Your task to perform on an android device: choose inbox layout in the gmail app Image 0: 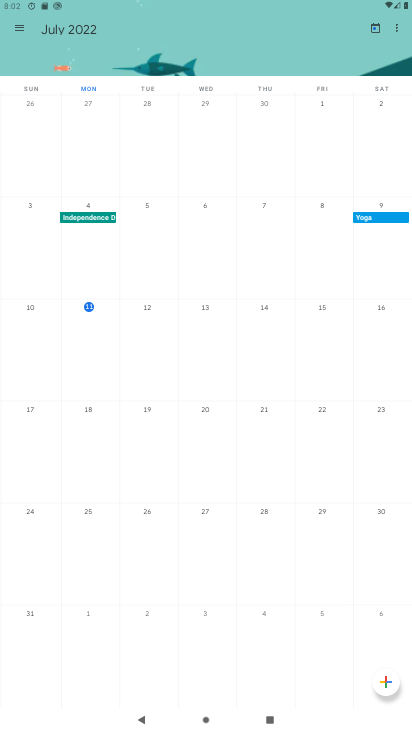
Step 0: press home button
Your task to perform on an android device: choose inbox layout in the gmail app Image 1: 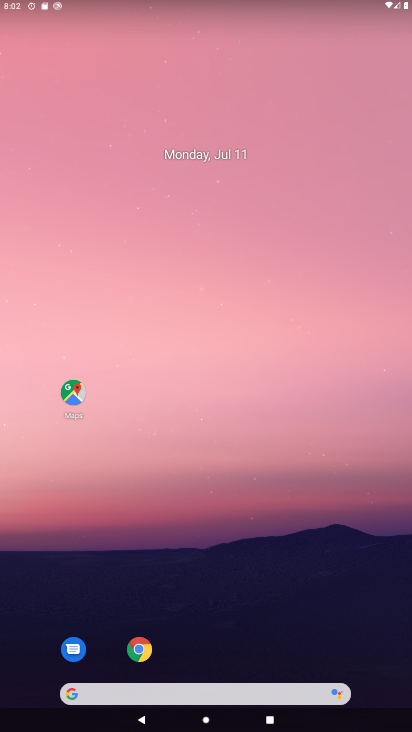
Step 1: drag from (273, 628) to (192, 13)
Your task to perform on an android device: choose inbox layout in the gmail app Image 2: 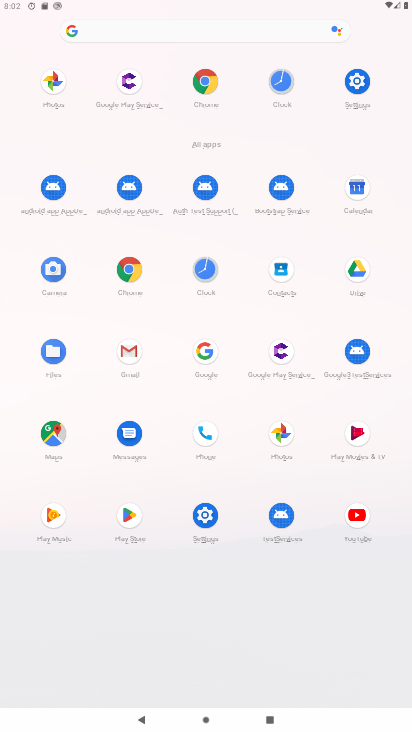
Step 2: click (123, 360)
Your task to perform on an android device: choose inbox layout in the gmail app Image 3: 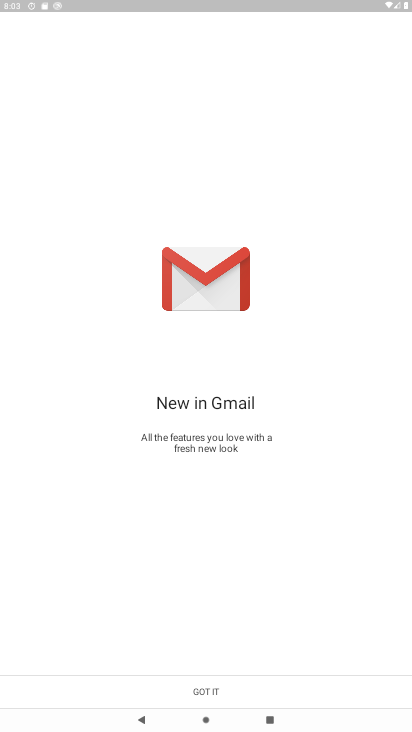
Step 3: click (302, 694)
Your task to perform on an android device: choose inbox layout in the gmail app Image 4: 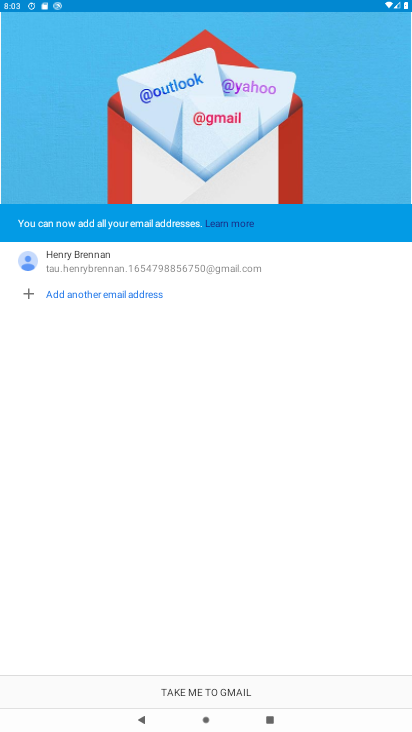
Step 4: click (267, 687)
Your task to perform on an android device: choose inbox layout in the gmail app Image 5: 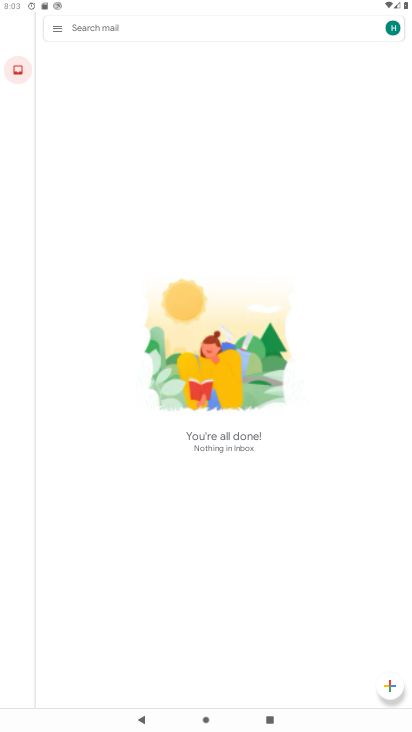
Step 5: click (58, 32)
Your task to perform on an android device: choose inbox layout in the gmail app Image 6: 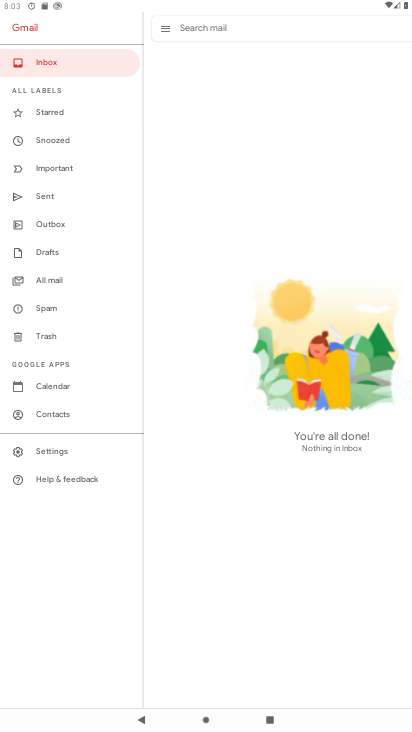
Step 6: click (49, 448)
Your task to perform on an android device: choose inbox layout in the gmail app Image 7: 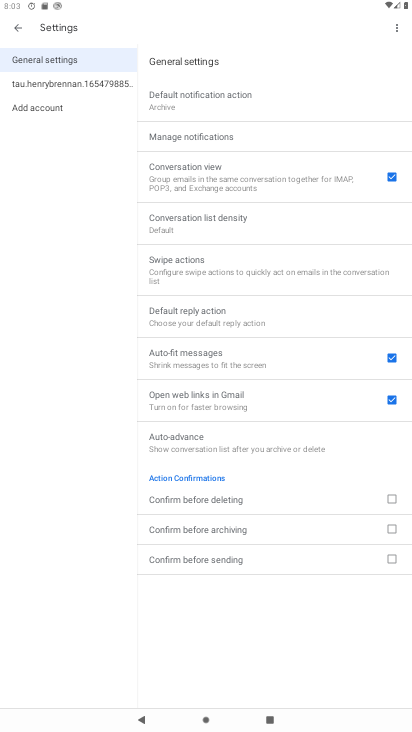
Step 7: click (64, 80)
Your task to perform on an android device: choose inbox layout in the gmail app Image 8: 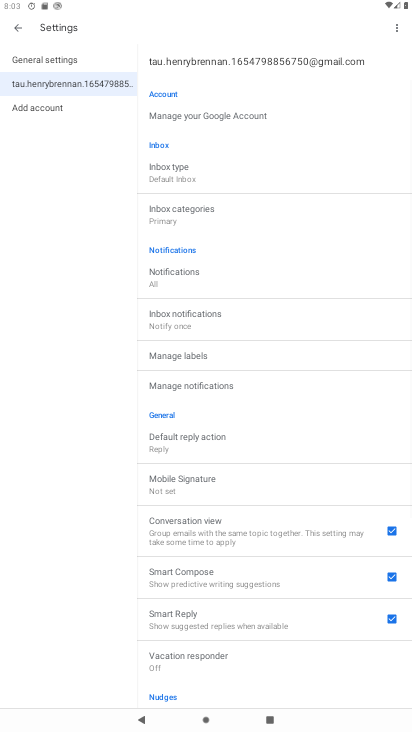
Step 8: click (179, 166)
Your task to perform on an android device: choose inbox layout in the gmail app Image 9: 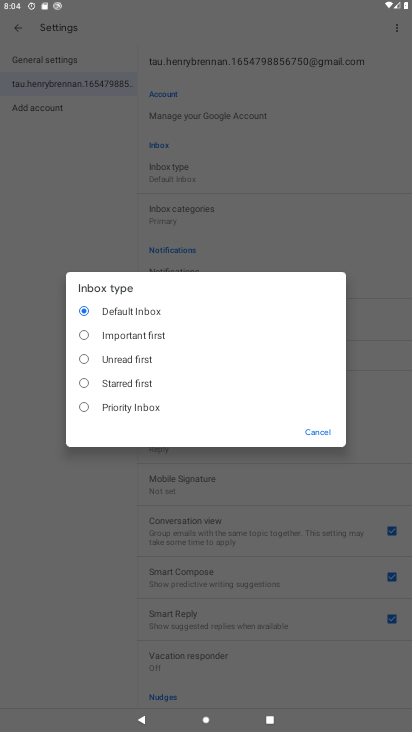
Step 9: click (134, 334)
Your task to perform on an android device: choose inbox layout in the gmail app Image 10: 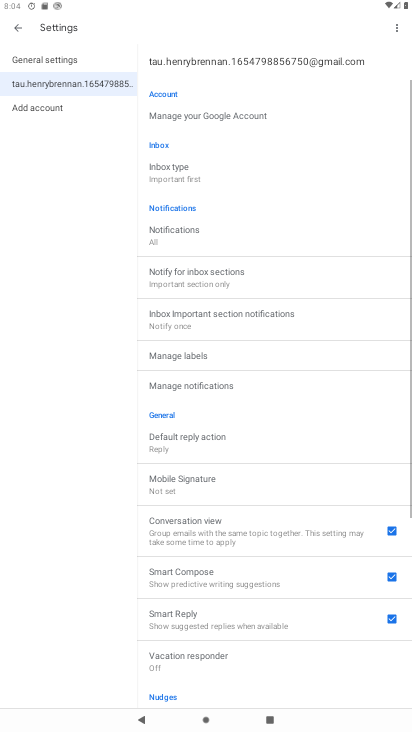
Step 10: task complete